Your task to perform on an android device: set the stopwatch Image 0: 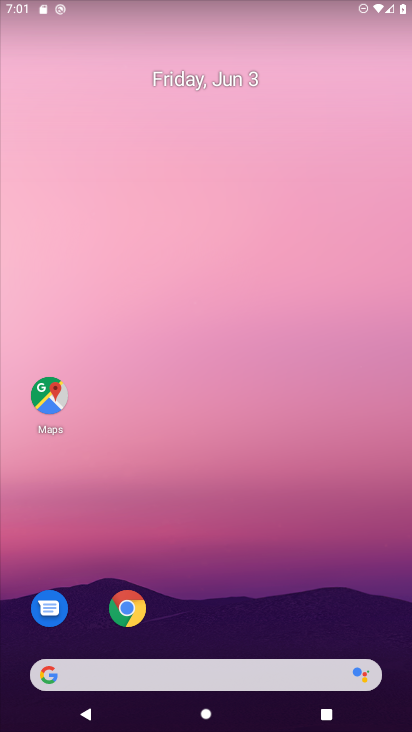
Step 0: drag from (199, 649) to (147, 93)
Your task to perform on an android device: set the stopwatch Image 1: 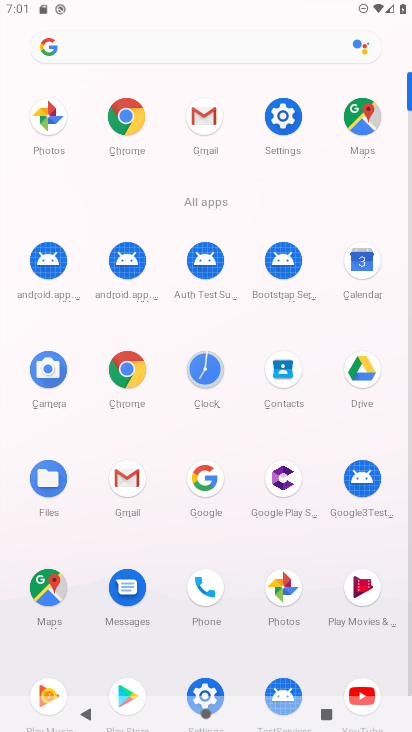
Step 1: click (205, 369)
Your task to perform on an android device: set the stopwatch Image 2: 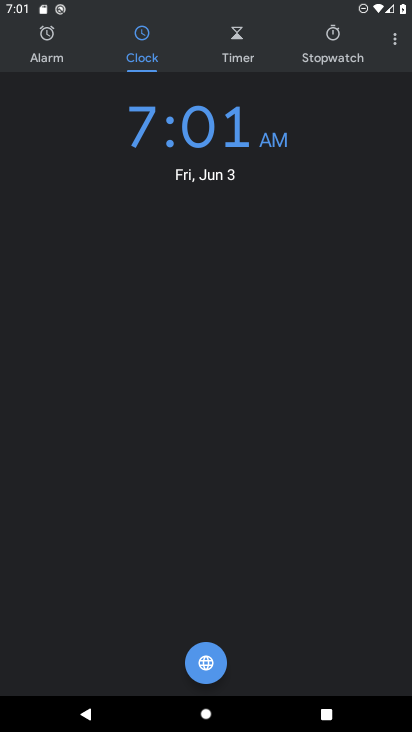
Step 2: click (326, 35)
Your task to perform on an android device: set the stopwatch Image 3: 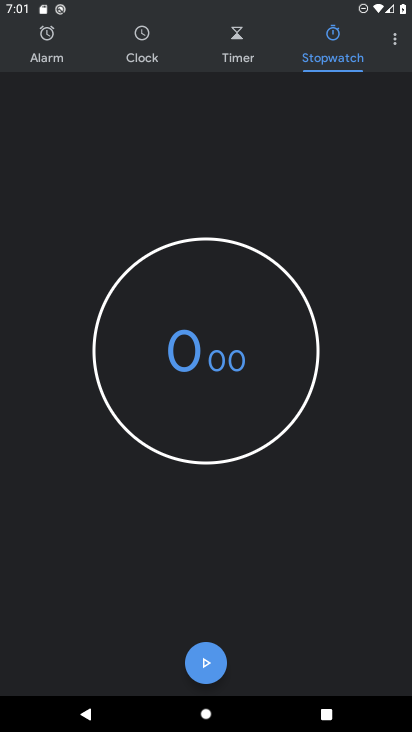
Step 3: click (210, 665)
Your task to perform on an android device: set the stopwatch Image 4: 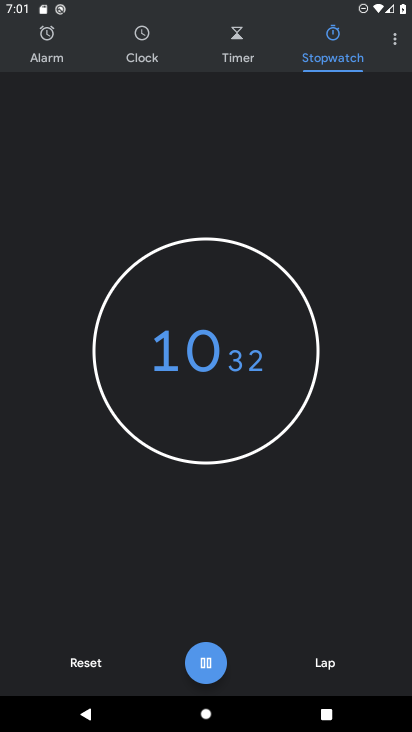
Step 4: task complete